Your task to perform on an android device: Toggle the flashlight Image 0: 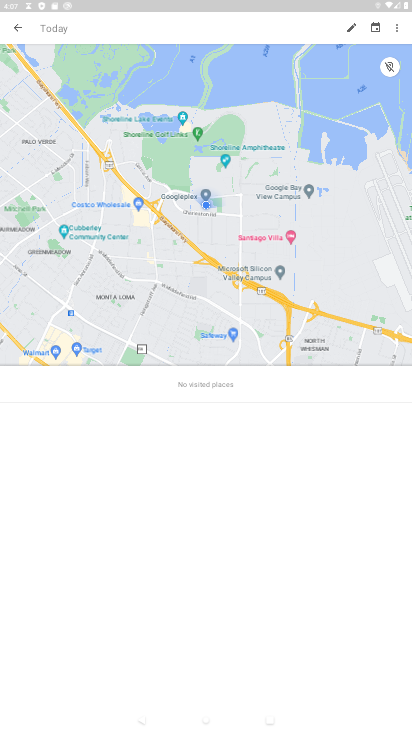
Step 0: press home button
Your task to perform on an android device: Toggle the flashlight Image 1: 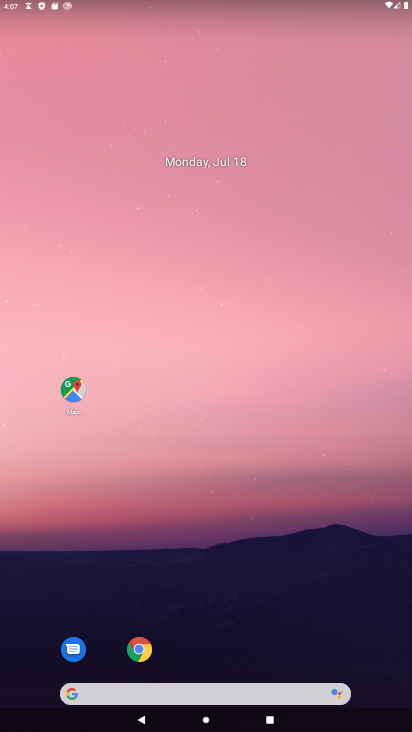
Step 1: task complete